Your task to perform on an android device: Open ESPN.com Image 0: 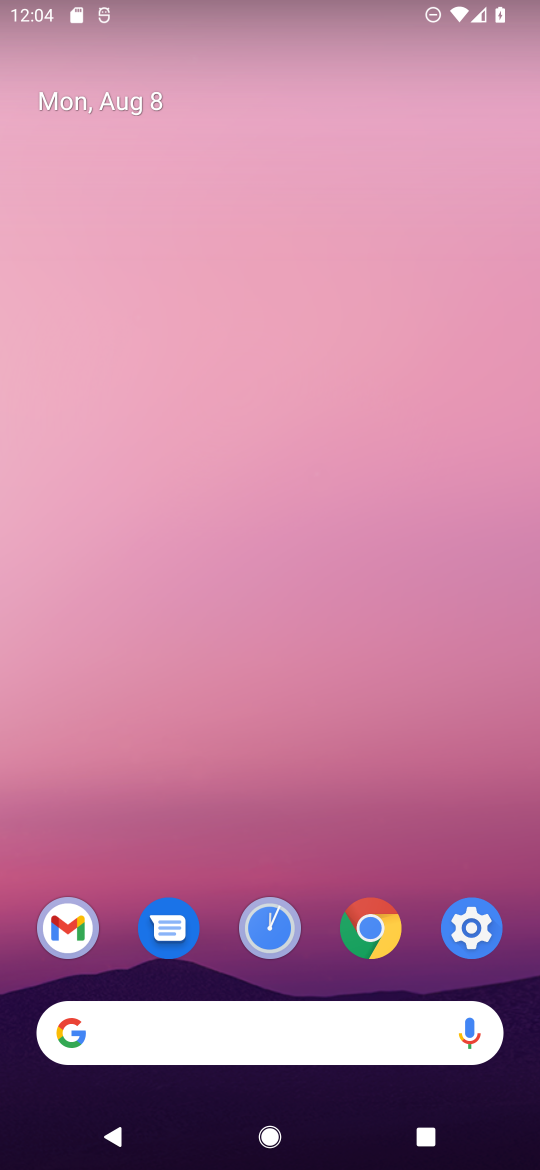
Step 0: press home button
Your task to perform on an android device: Open ESPN.com Image 1: 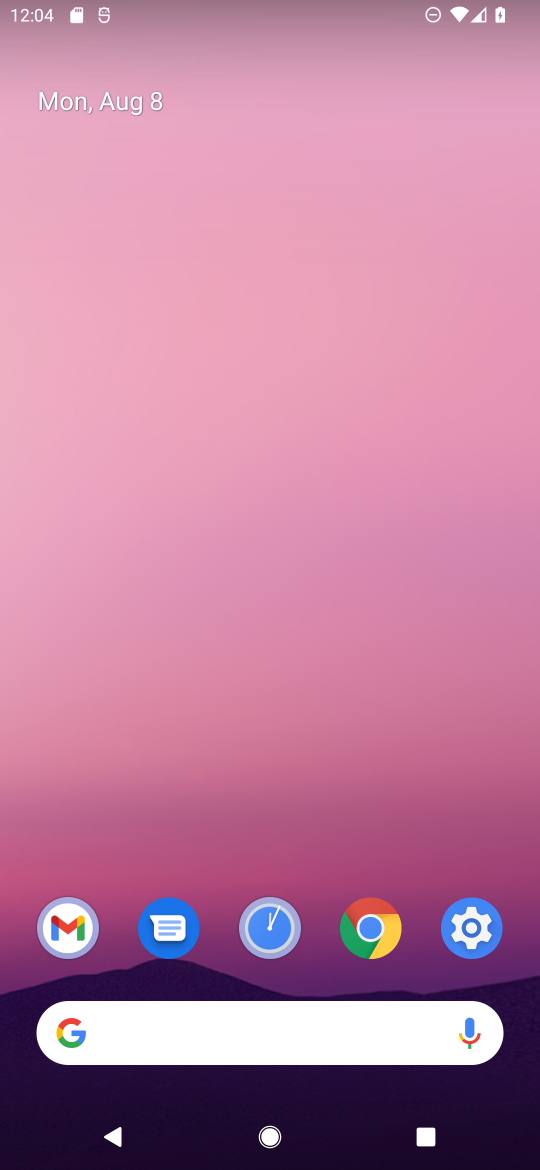
Step 1: drag from (315, 1080) to (303, 340)
Your task to perform on an android device: Open ESPN.com Image 2: 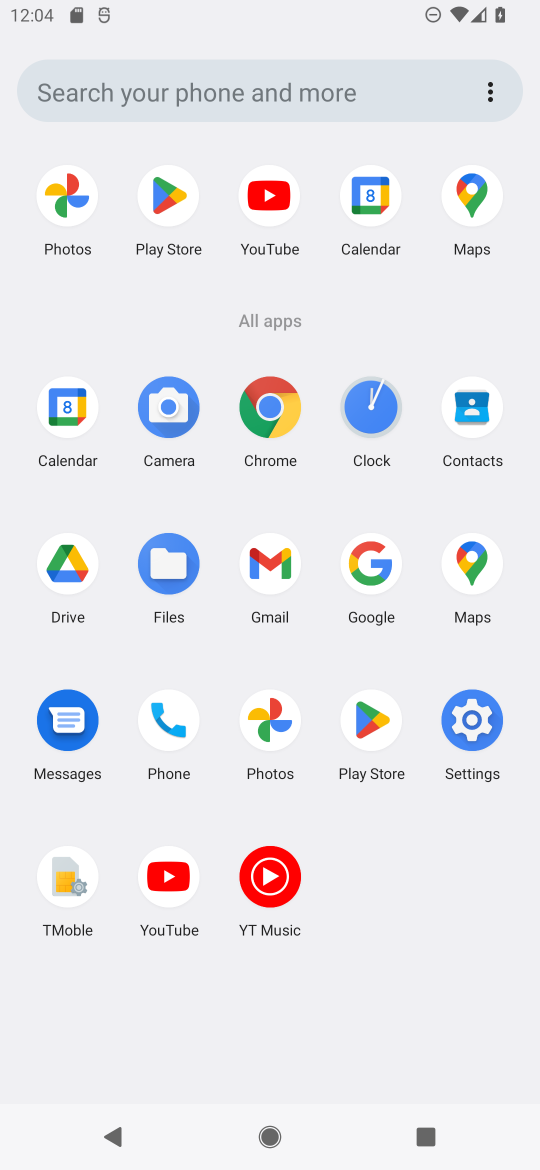
Step 2: click (272, 411)
Your task to perform on an android device: Open ESPN.com Image 3: 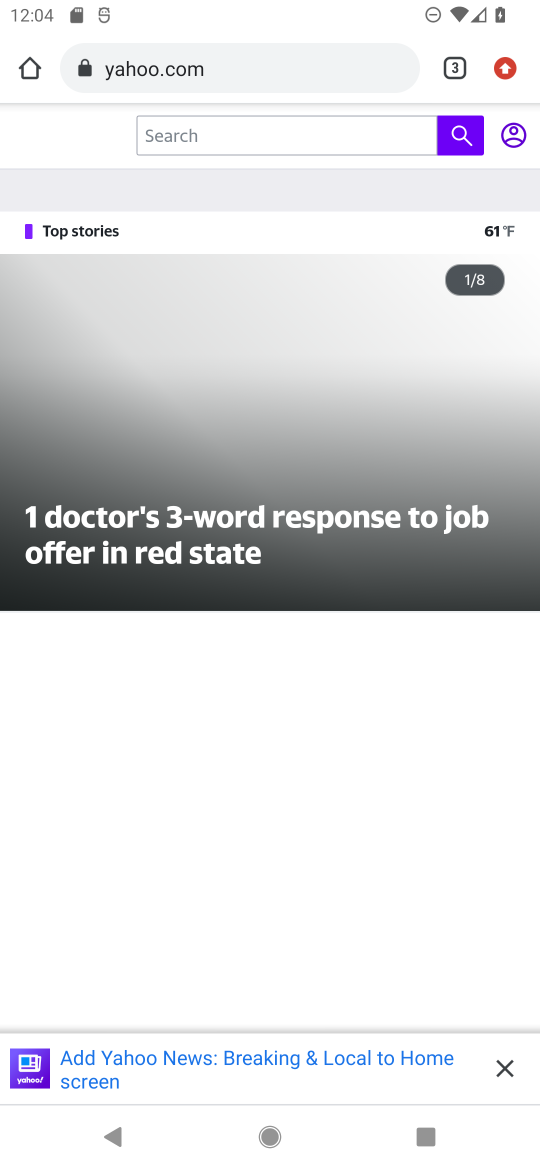
Step 3: click (450, 76)
Your task to perform on an android device: Open ESPN.com Image 4: 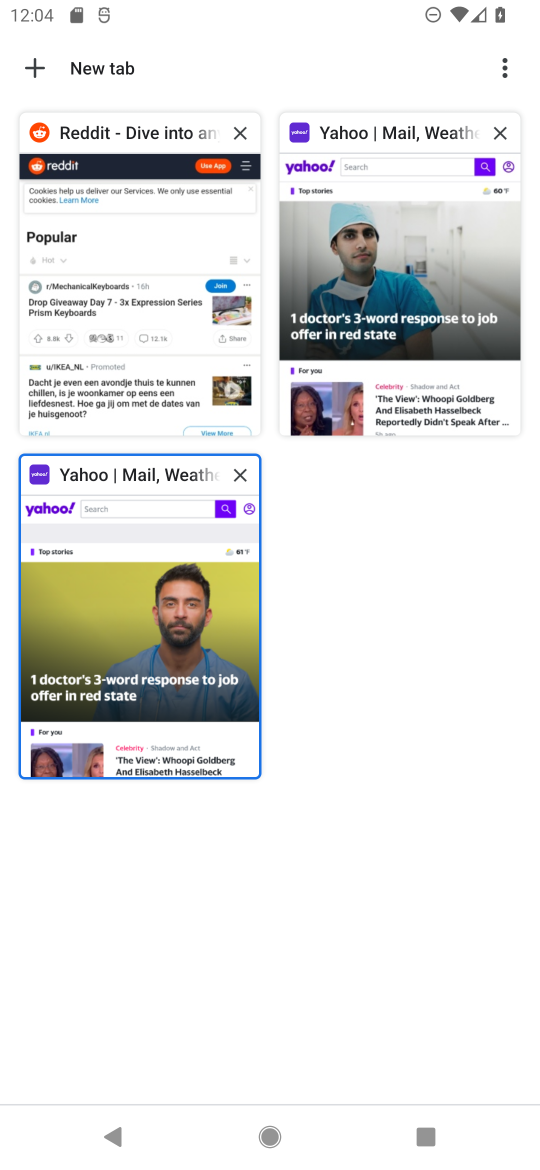
Step 4: click (33, 65)
Your task to perform on an android device: Open ESPN.com Image 5: 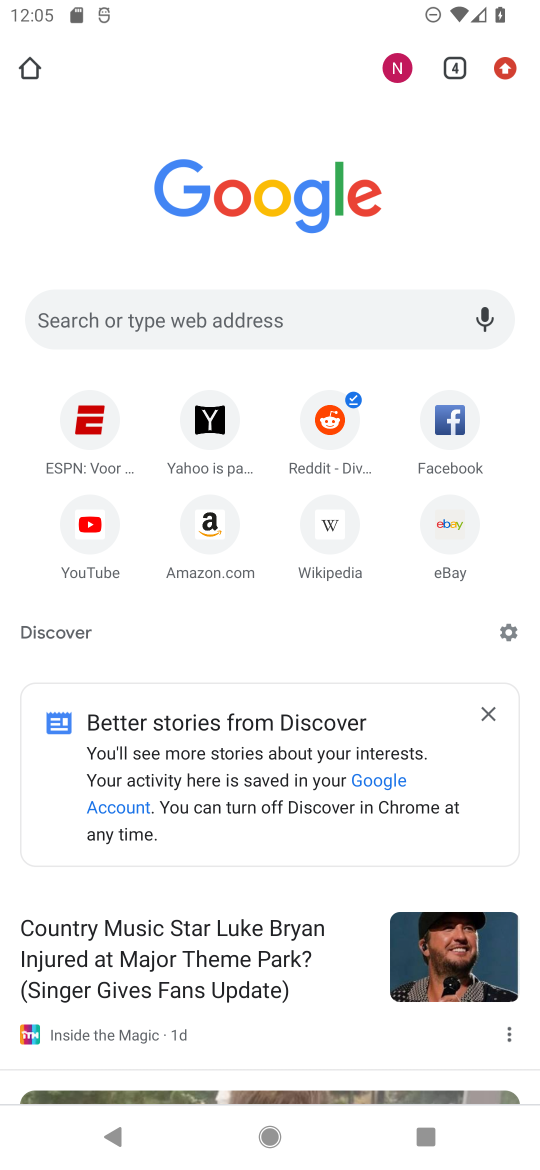
Step 5: click (82, 414)
Your task to perform on an android device: Open ESPN.com Image 6: 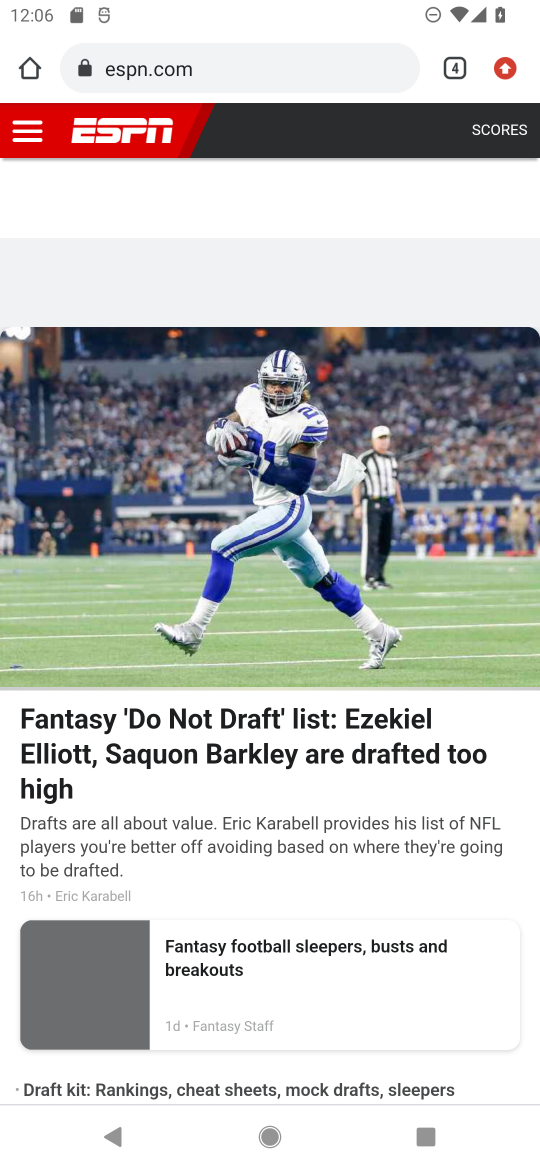
Step 6: task complete